Your task to perform on an android device: Open Maps and search for coffee Image 0: 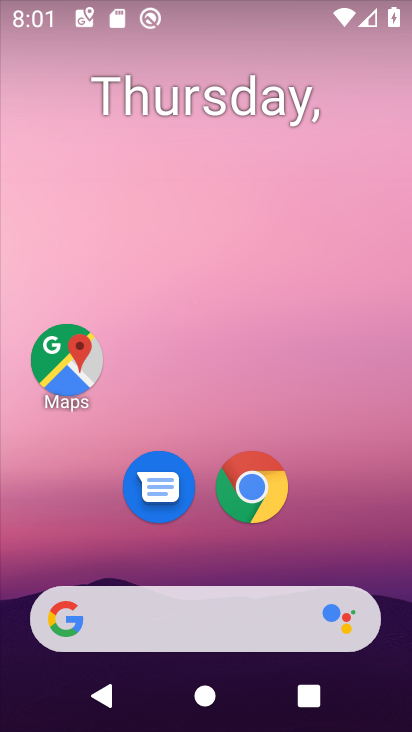
Step 0: click (85, 361)
Your task to perform on an android device: Open Maps and search for coffee Image 1: 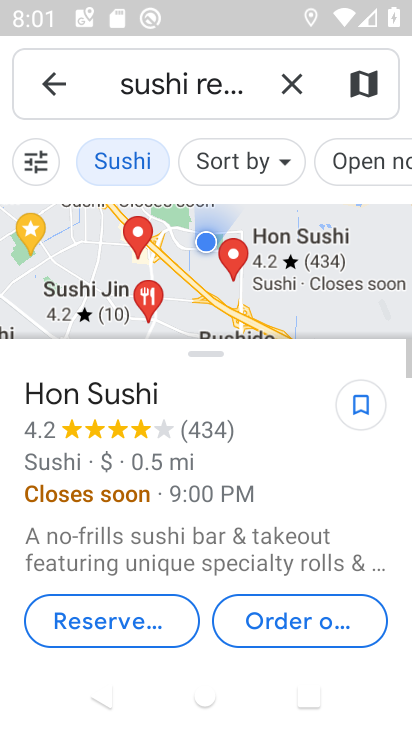
Step 1: click (279, 75)
Your task to perform on an android device: Open Maps and search for coffee Image 2: 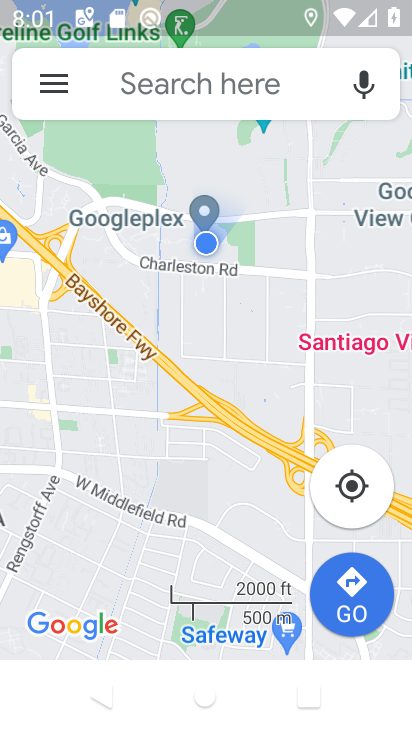
Step 2: click (183, 98)
Your task to perform on an android device: Open Maps and search for coffee Image 3: 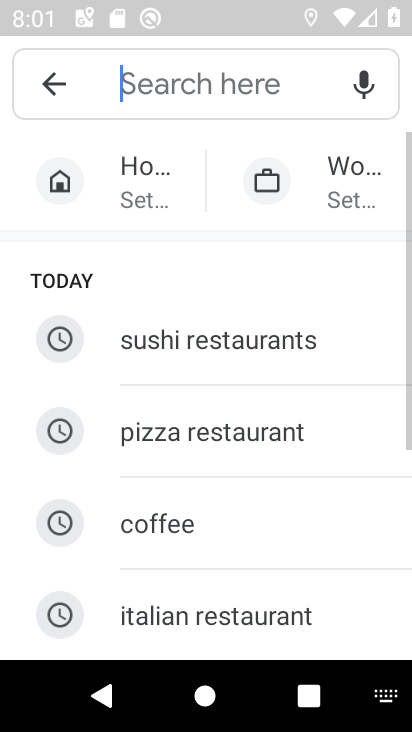
Step 3: click (139, 528)
Your task to perform on an android device: Open Maps and search for coffee Image 4: 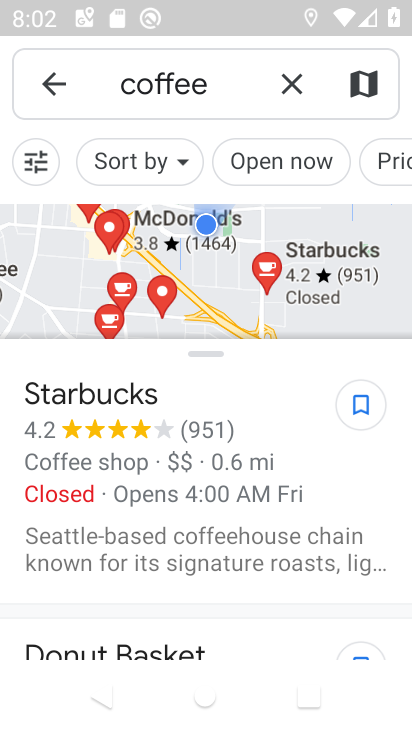
Step 4: task complete